Your task to perform on an android device: change keyboard looks Image 0: 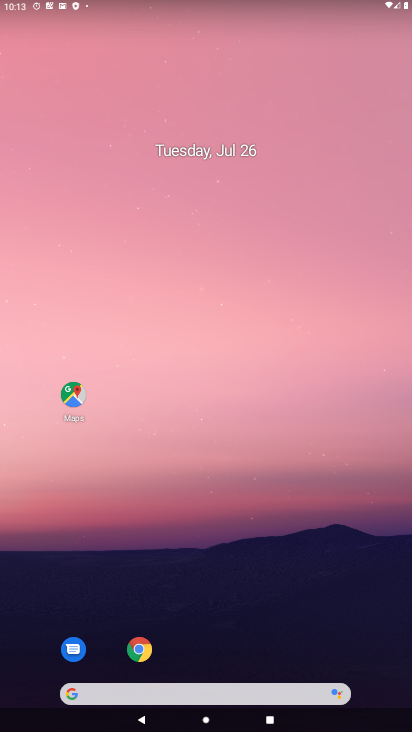
Step 0: drag from (188, 609) to (166, 156)
Your task to perform on an android device: change keyboard looks Image 1: 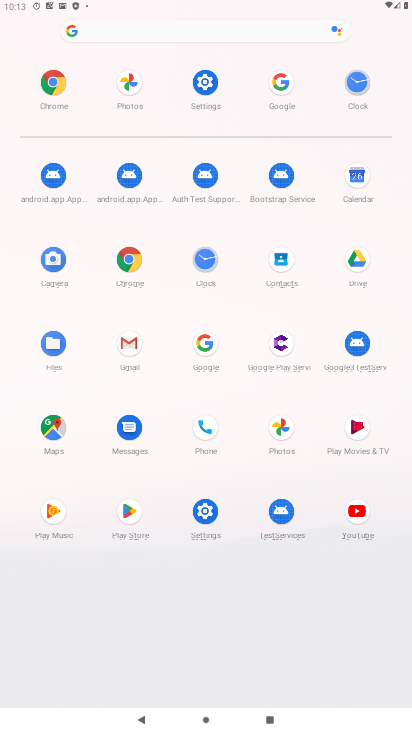
Step 1: click (212, 82)
Your task to perform on an android device: change keyboard looks Image 2: 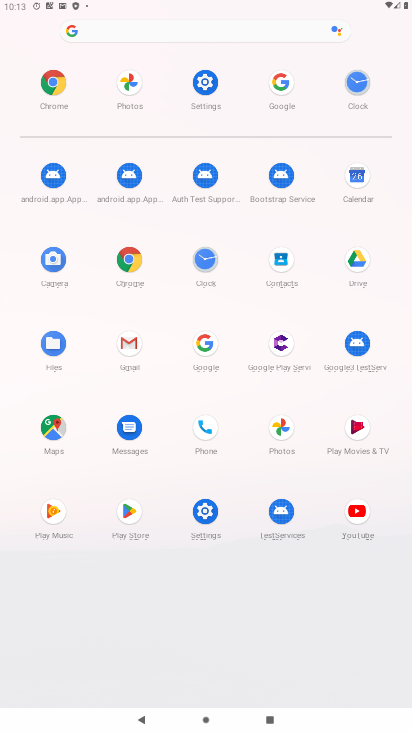
Step 2: click (212, 82)
Your task to perform on an android device: change keyboard looks Image 3: 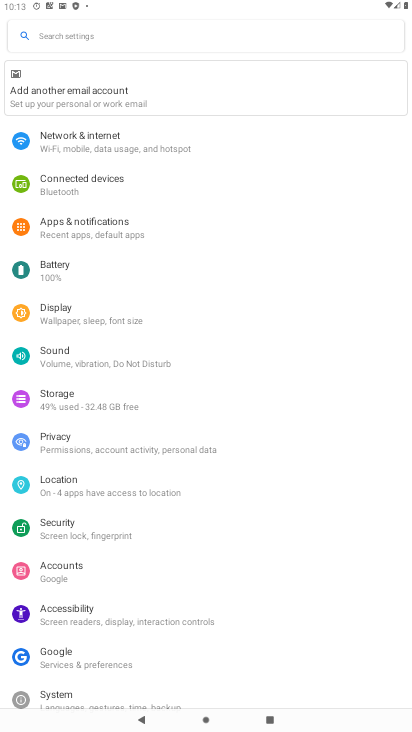
Step 3: click (72, 698)
Your task to perform on an android device: change keyboard looks Image 4: 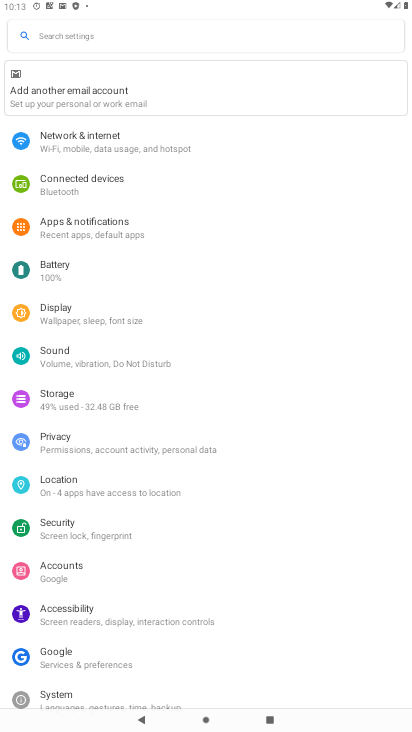
Step 4: click (79, 694)
Your task to perform on an android device: change keyboard looks Image 5: 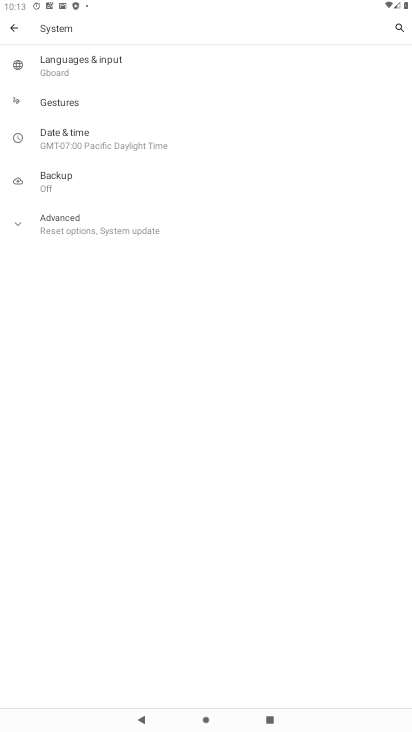
Step 5: click (108, 66)
Your task to perform on an android device: change keyboard looks Image 6: 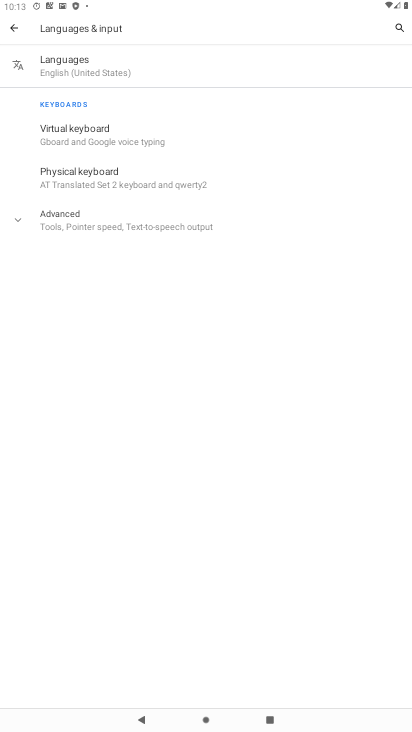
Step 6: click (121, 141)
Your task to perform on an android device: change keyboard looks Image 7: 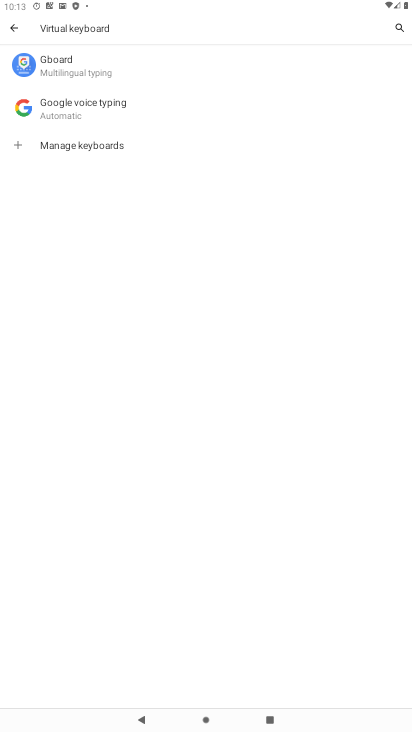
Step 7: click (107, 73)
Your task to perform on an android device: change keyboard looks Image 8: 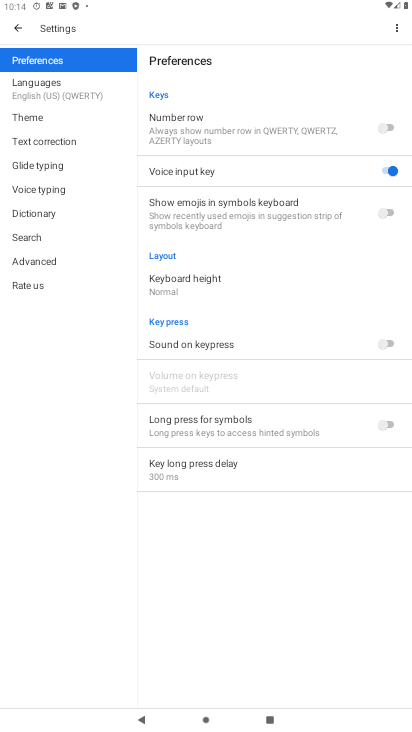
Step 8: click (33, 113)
Your task to perform on an android device: change keyboard looks Image 9: 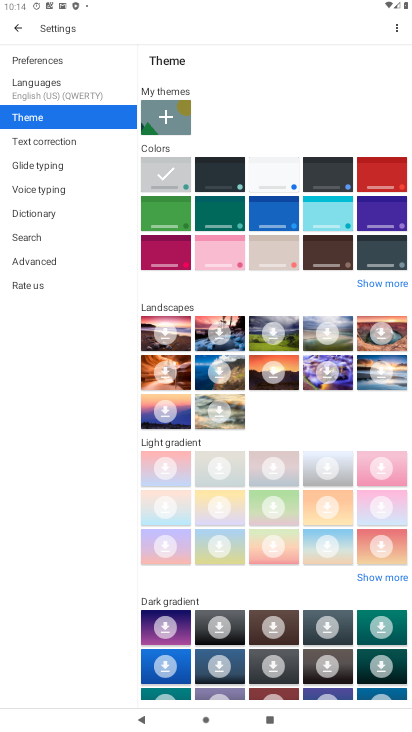
Step 9: click (220, 180)
Your task to perform on an android device: change keyboard looks Image 10: 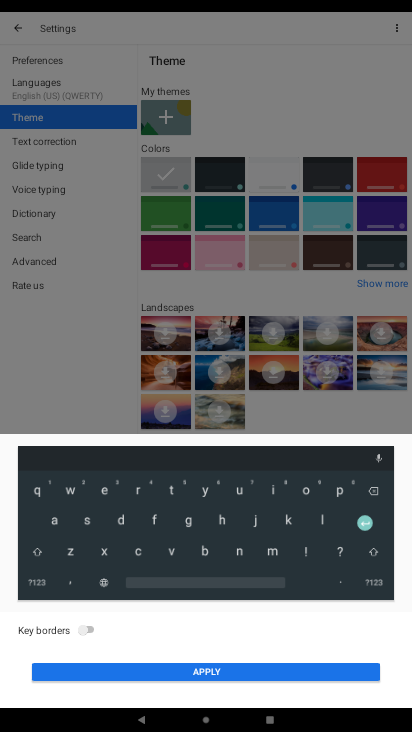
Step 10: click (258, 676)
Your task to perform on an android device: change keyboard looks Image 11: 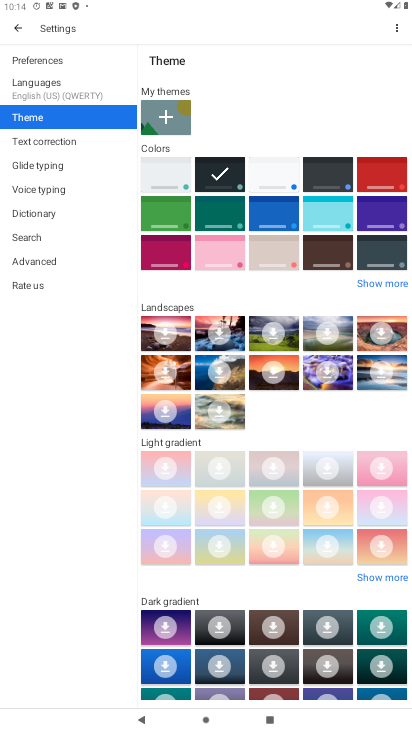
Step 11: task complete